Your task to perform on an android device: check battery use Image 0: 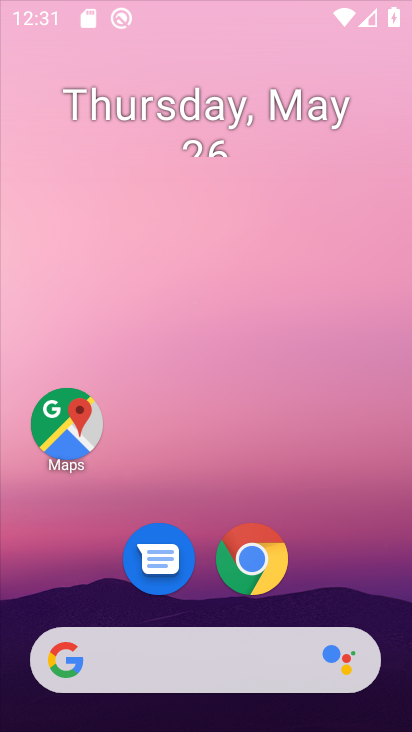
Step 0: press home button
Your task to perform on an android device: check battery use Image 1: 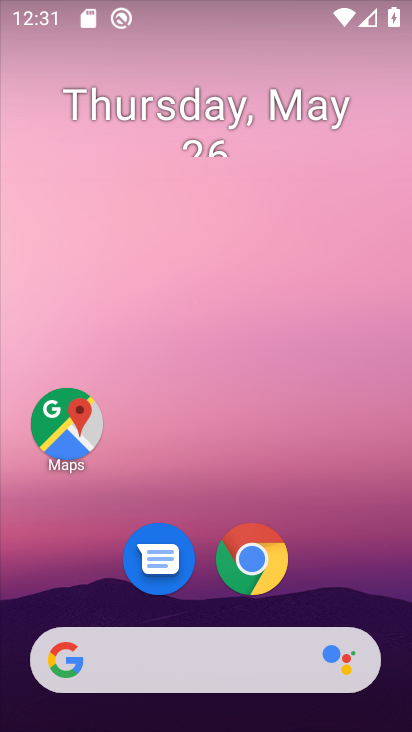
Step 1: drag from (321, 600) to (346, 175)
Your task to perform on an android device: check battery use Image 2: 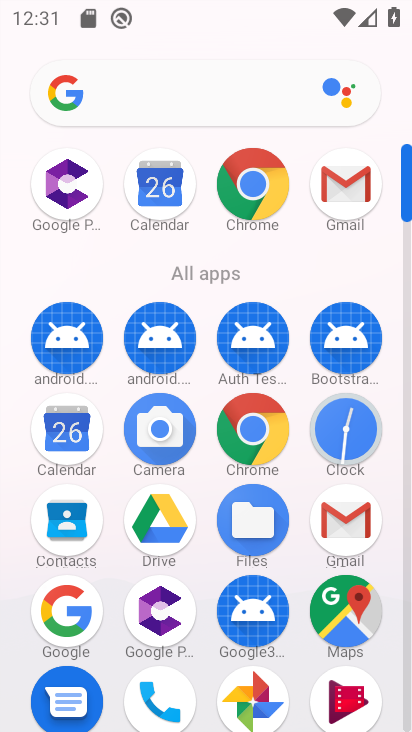
Step 2: drag from (378, 574) to (331, 195)
Your task to perform on an android device: check battery use Image 3: 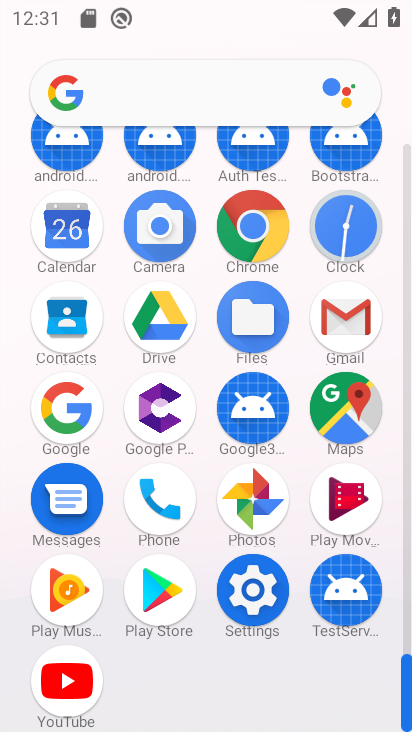
Step 3: click (245, 587)
Your task to perform on an android device: check battery use Image 4: 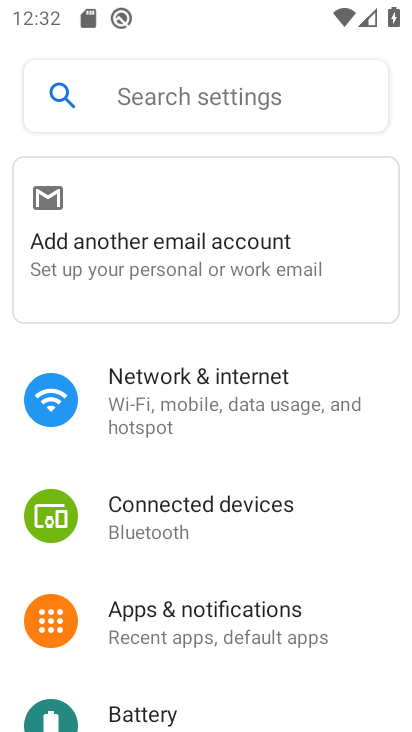
Step 4: click (144, 722)
Your task to perform on an android device: check battery use Image 5: 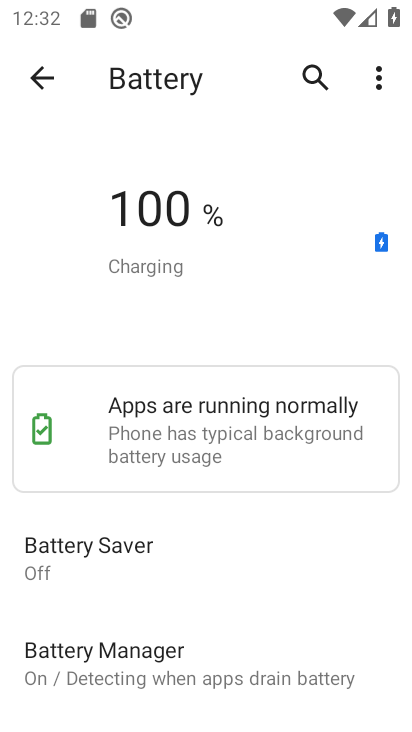
Step 5: click (380, 82)
Your task to perform on an android device: check battery use Image 6: 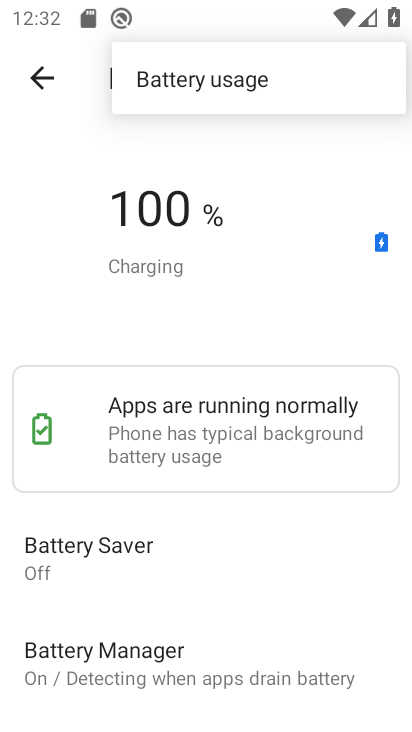
Step 6: click (206, 72)
Your task to perform on an android device: check battery use Image 7: 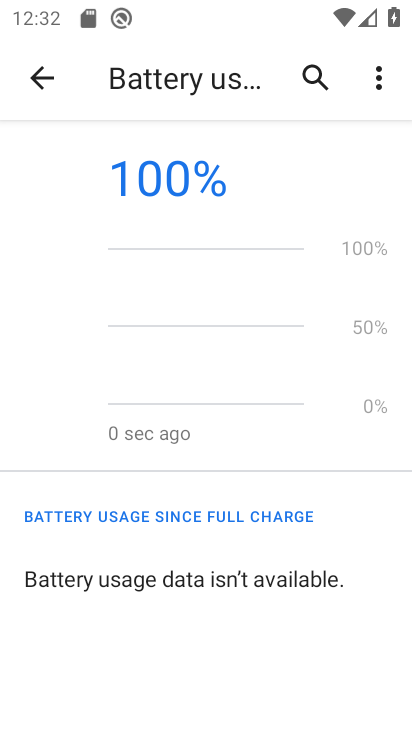
Step 7: task complete